Your task to perform on an android device: Open Google Image 0: 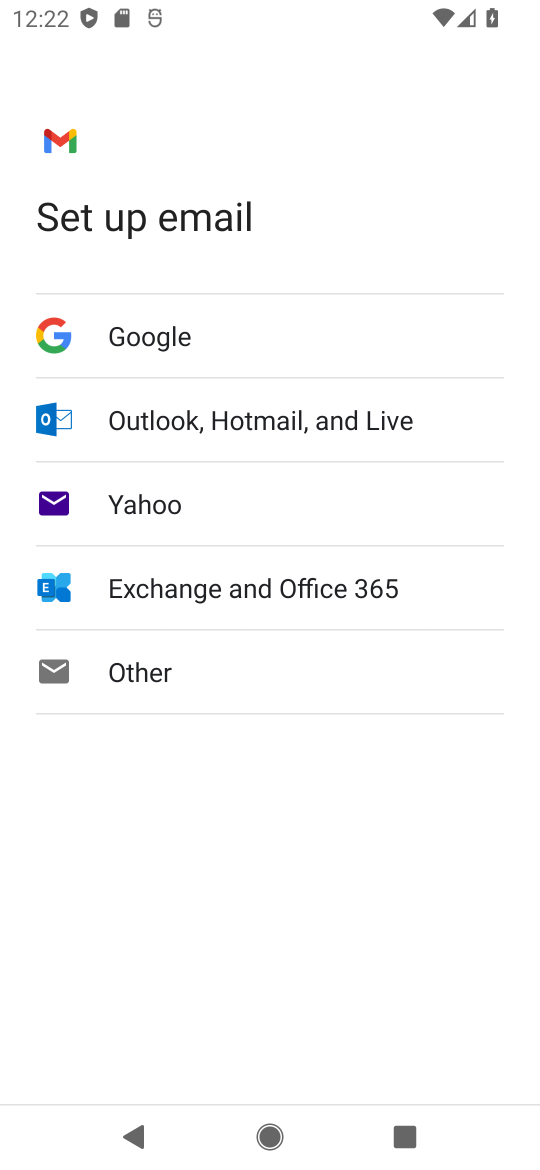
Step 0: press home button
Your task to perform on an android device: Open Google Image 1: 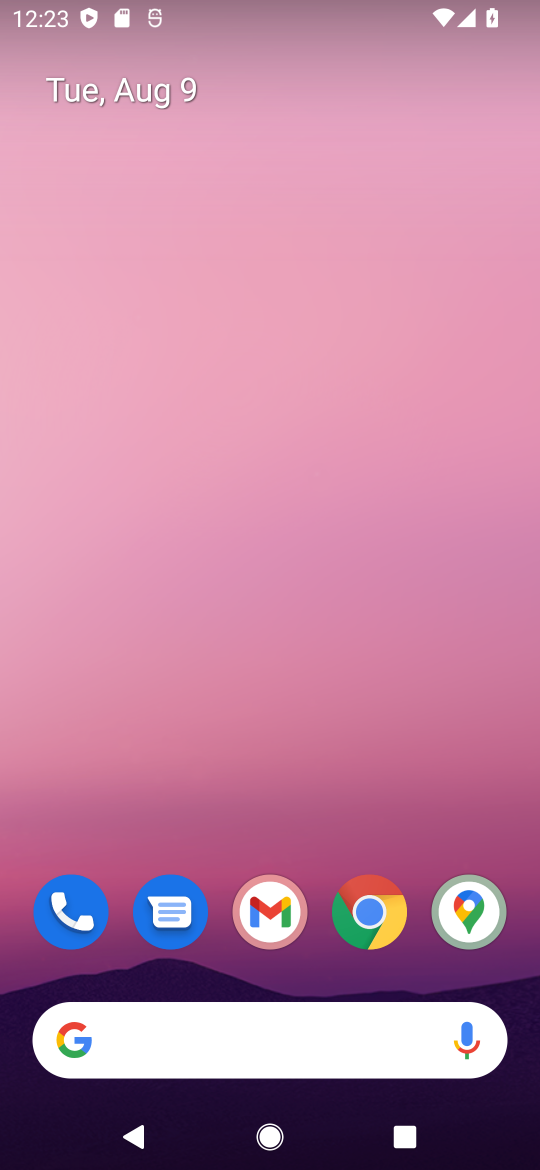
Step 1: drag from (256, 989) to (170, 211)
Your task to perform on an android device: Open Google Image 2: 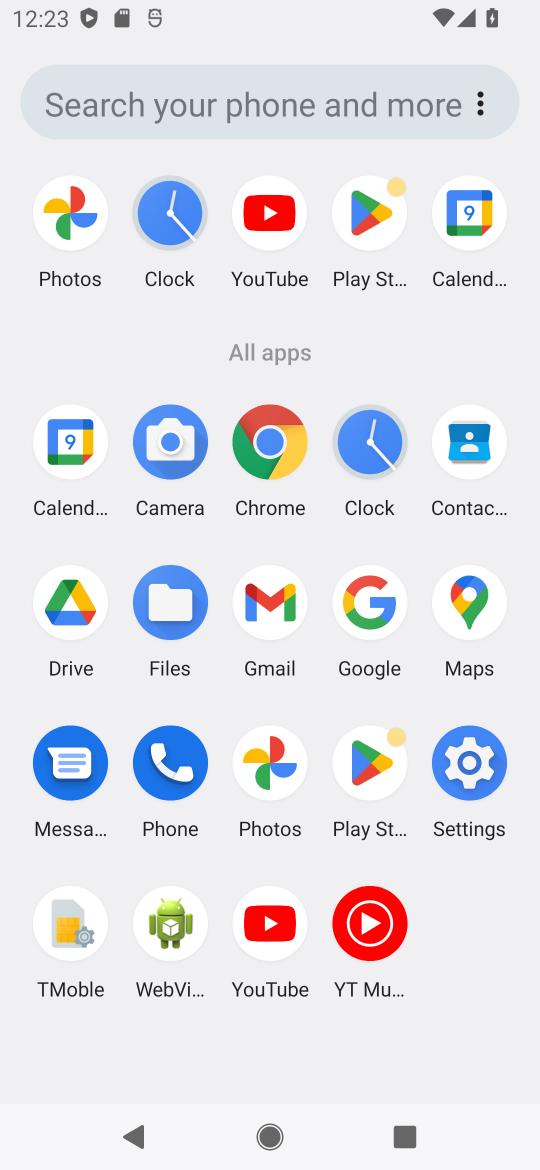
Step 2: click (368, 601)
Your task to perform on an android device: Open Google Image 3: 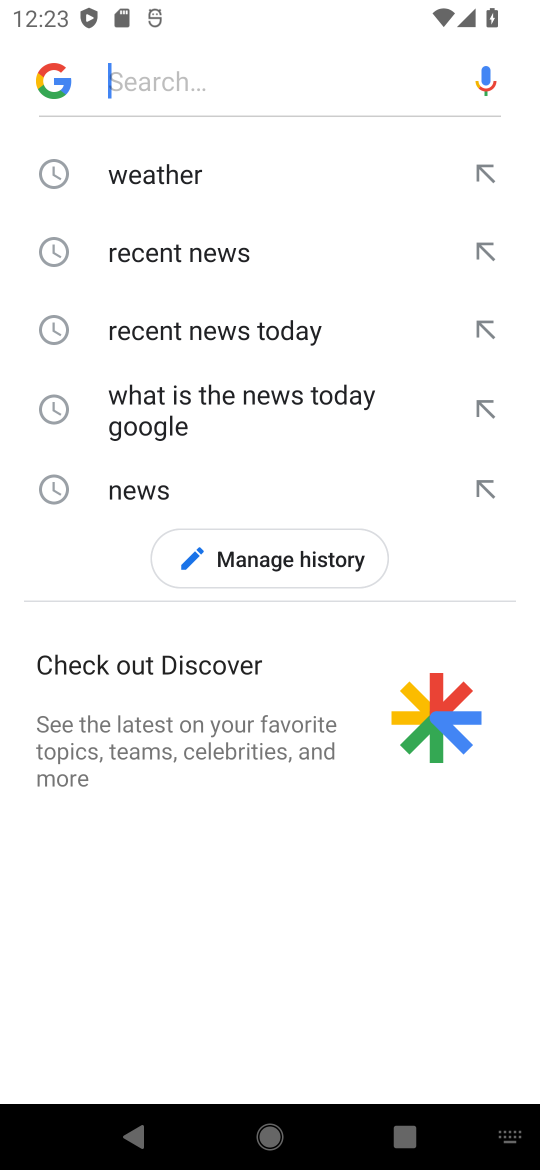
Step 3: task complete